Your task to perform on an android device: Open Reddit.com Image 0: 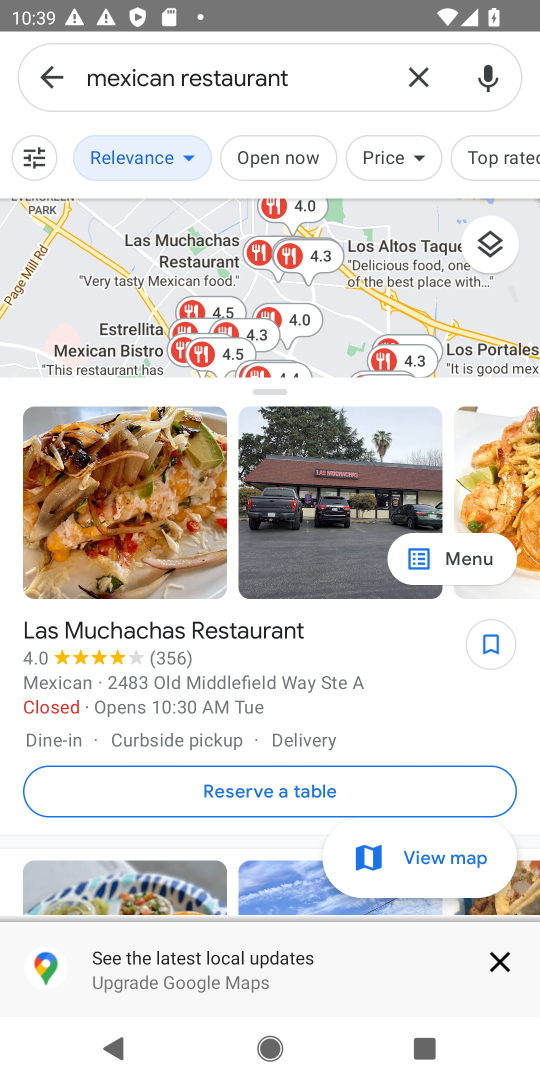
Step 0: press home button
Your task to perform on an android device: Open Reddit.com Image 1: 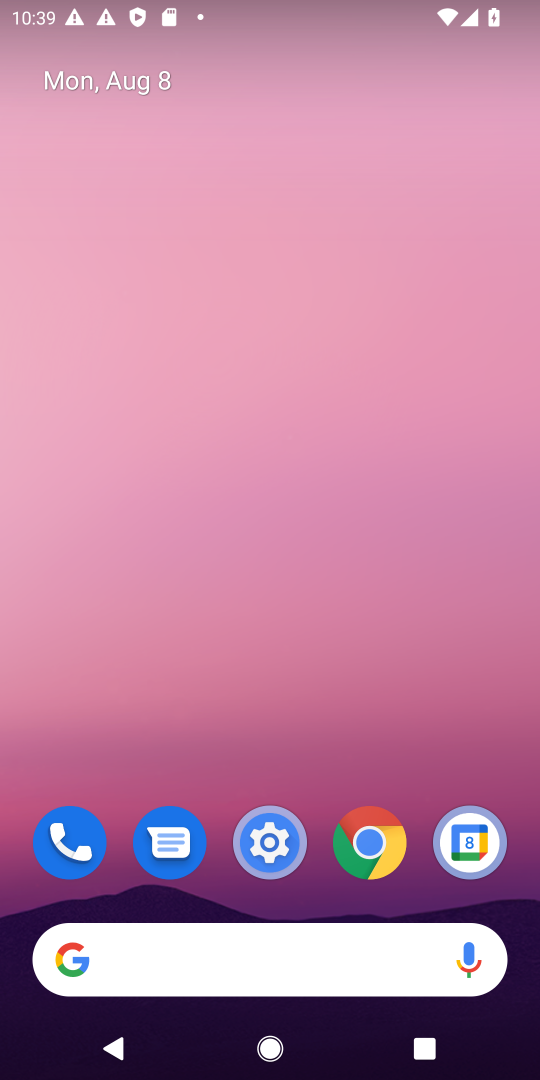
Step 1: click (387, 843)
Your task to perform on an android device: Open Reddit.com Image 2: 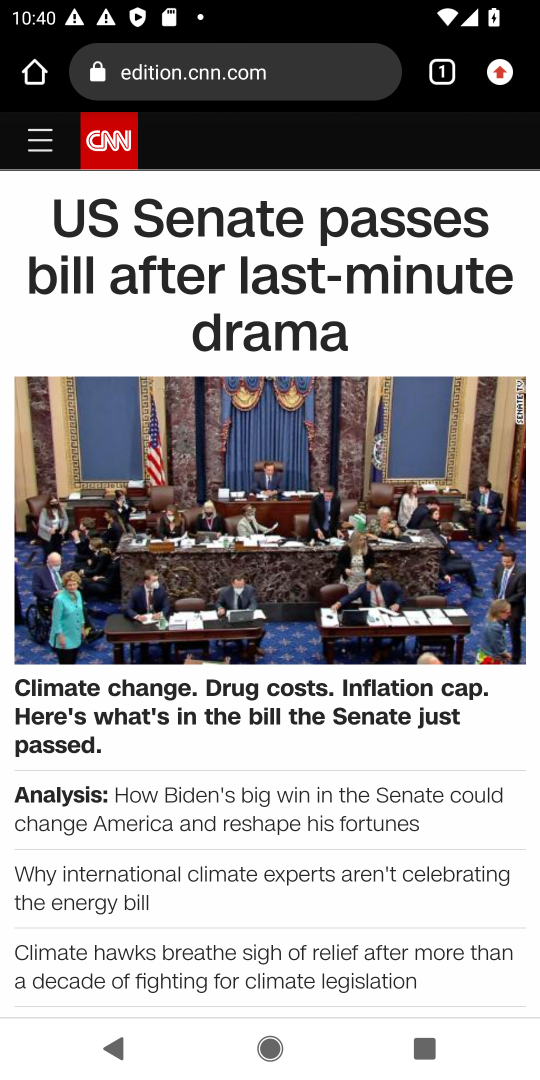
Step 2: click (434, 72)
Your task to perform on an android device: Open Reddit.com Image 3: 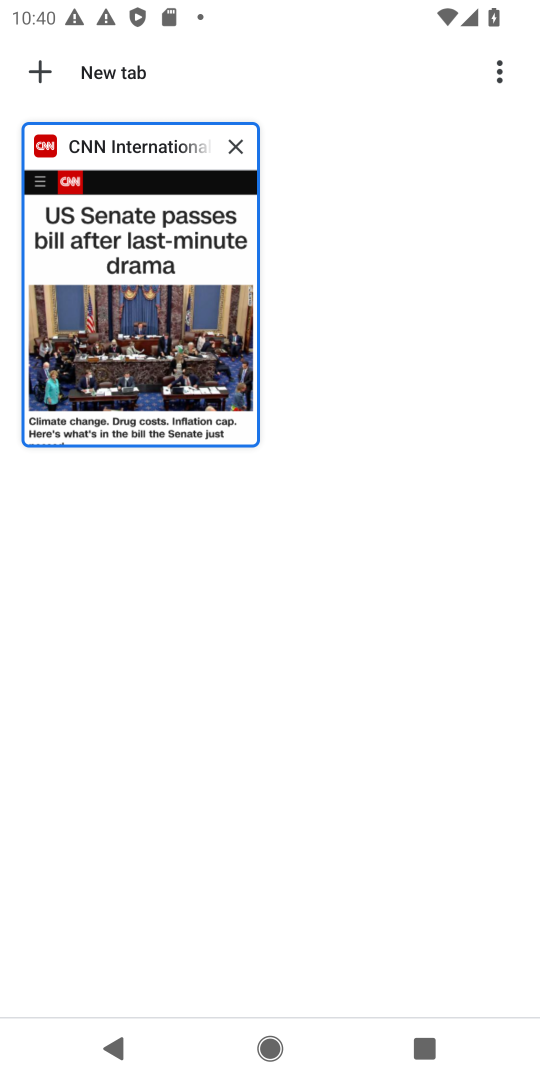
Step 3: click (34, 75)
Your task to perform on an android device: Open Reddit.com Image 4: 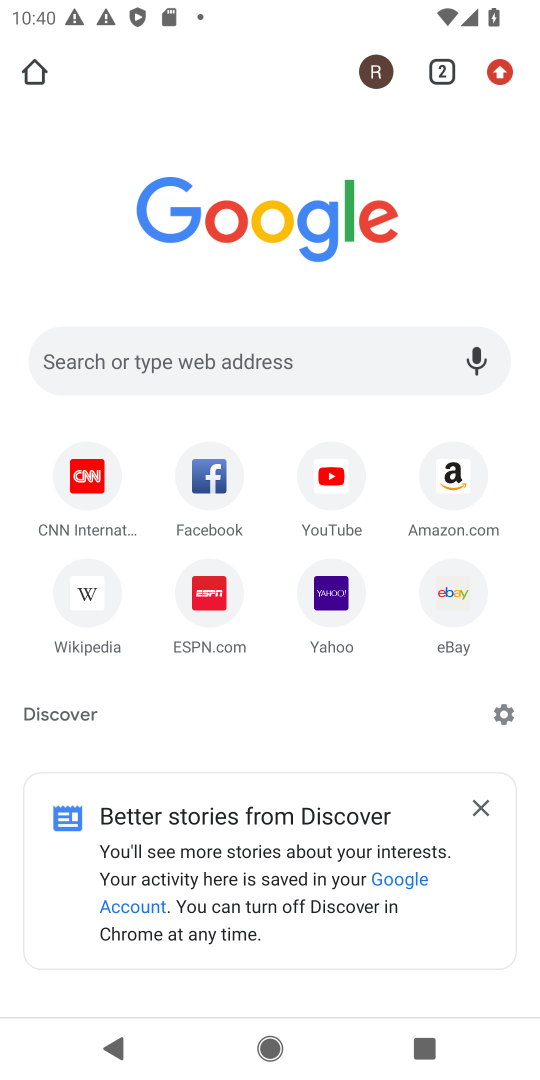
Step 4: click (268, 368)
Your task to perform on an android device: Open Reddit.com Image 5: 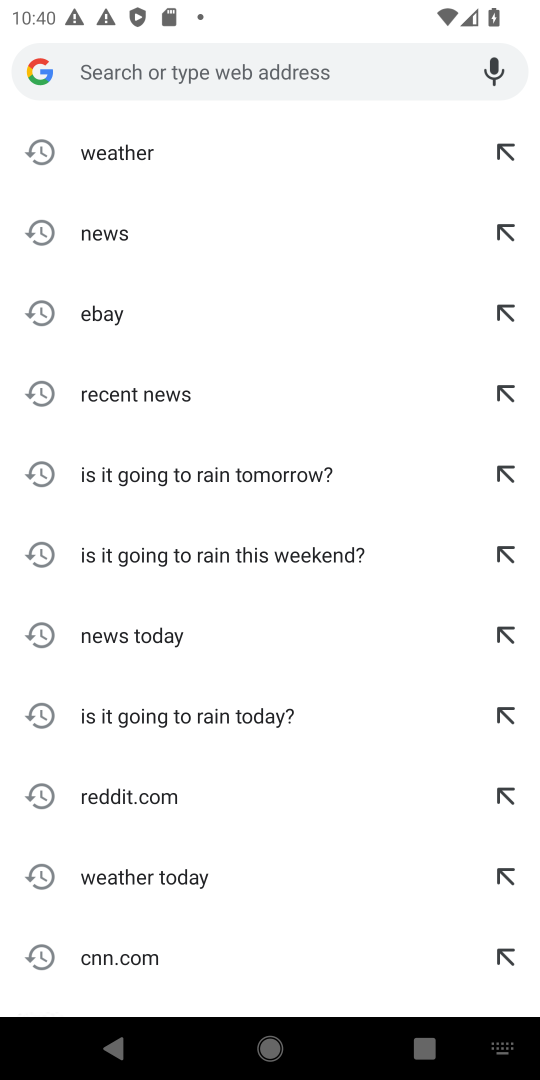
Step 5: click (120, 795)
Your task to perform on an android device: Open Reddit.com Image 6: 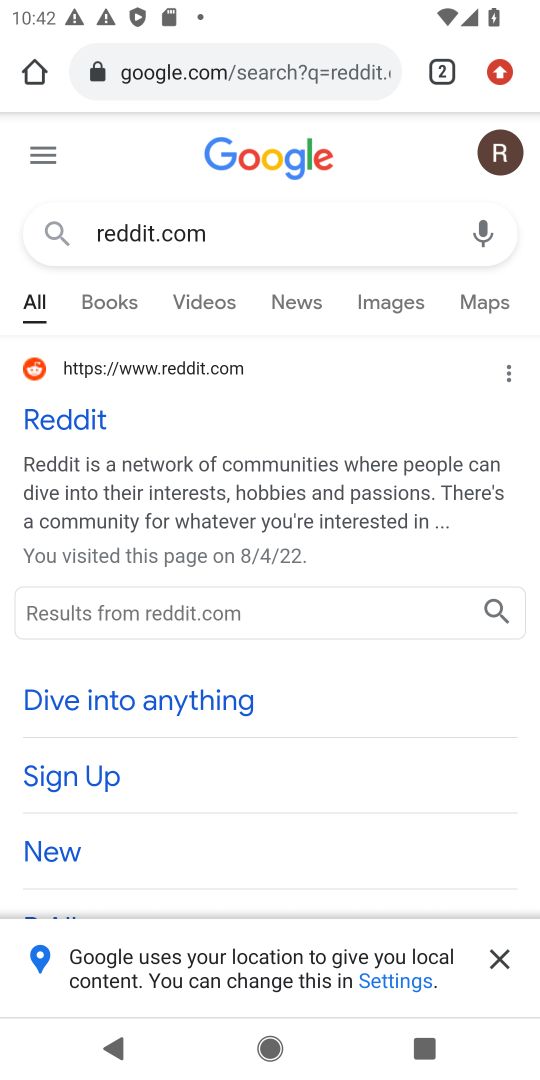
Step 6: task complete